Your task to perform on an android device: Open Yahoo.com Image 0: 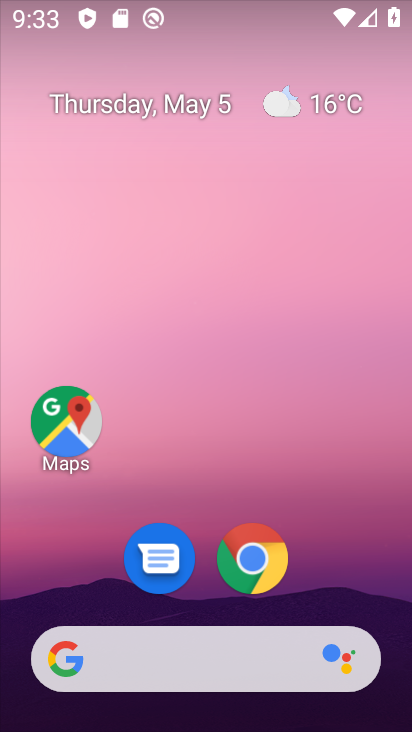
Step 0: click (263, 567)
Your task to perform on an android device: Open Yahoo.com Image 1: 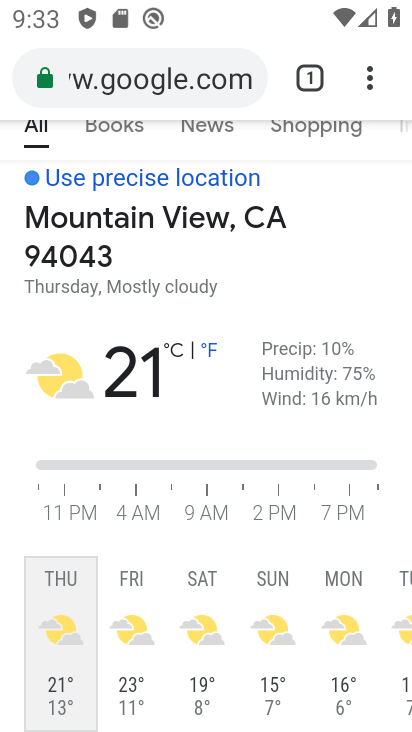
Step 1: click (167, 71)
Your task to perform on an android device: Open Yahoo.com Image 2: 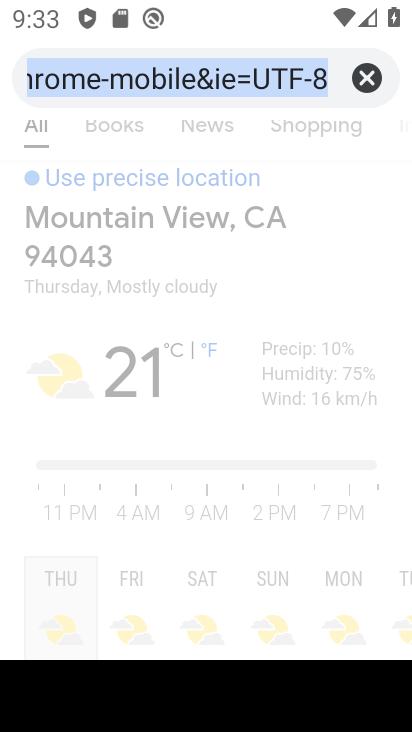
Step 2: type "yahoo.com"
Your task to perform on an android device: Open Yahoo.com Image 3: 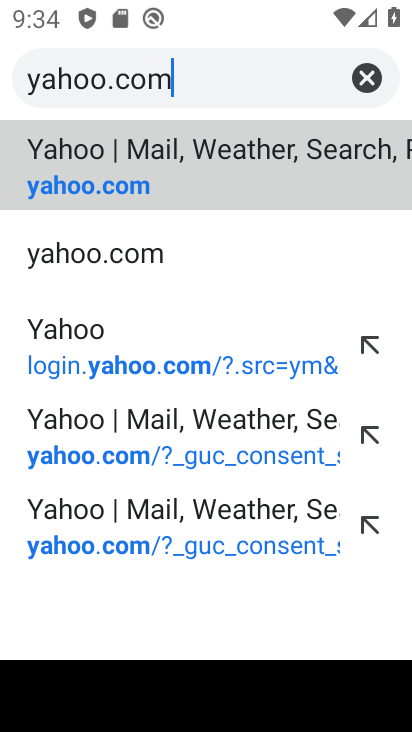
Step 3: click (43, 173)
Your task to perform on an android device: Open Yahoo.com Image 4: 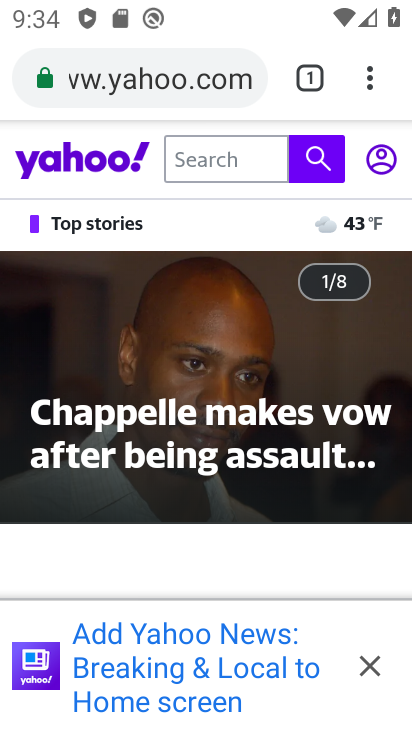
Step 4: task complete